Your task to perform on an android device: What's on my calendar for the rest of the month? Image 0: 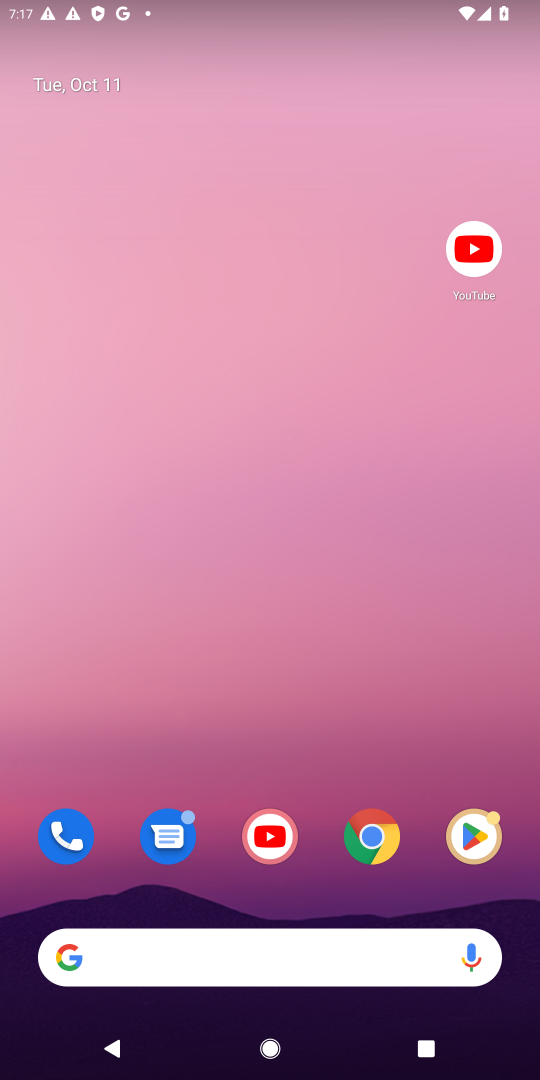
Step 0: drag from (303, 950) to (247, 78)
Your task to perform on an android device: What's on my calendar for the rest of the month? Image 1: 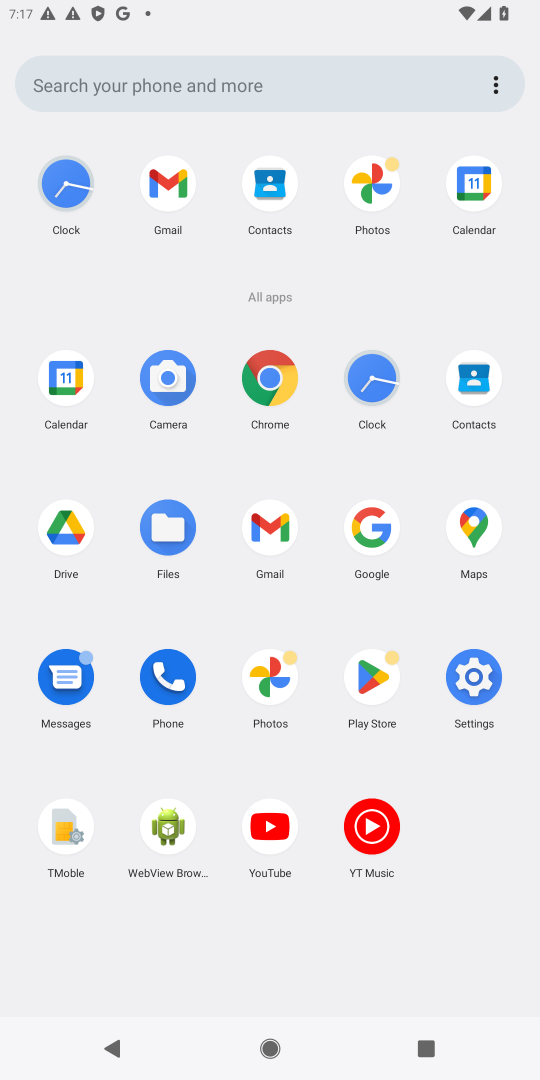
Step 1: click (62, 373)
Your task to perform on an android device: What's on my calendar for the rest of the month? Image 2: 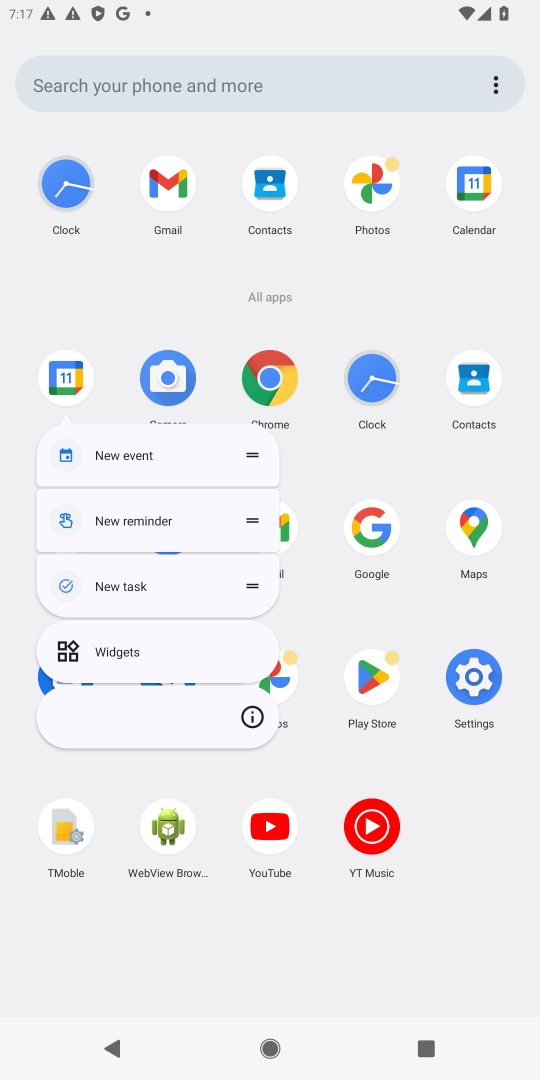
Step 2: click (68, 377)
Your task to perform on an android device: What's on my calendar for the rest of the month? Image 3: 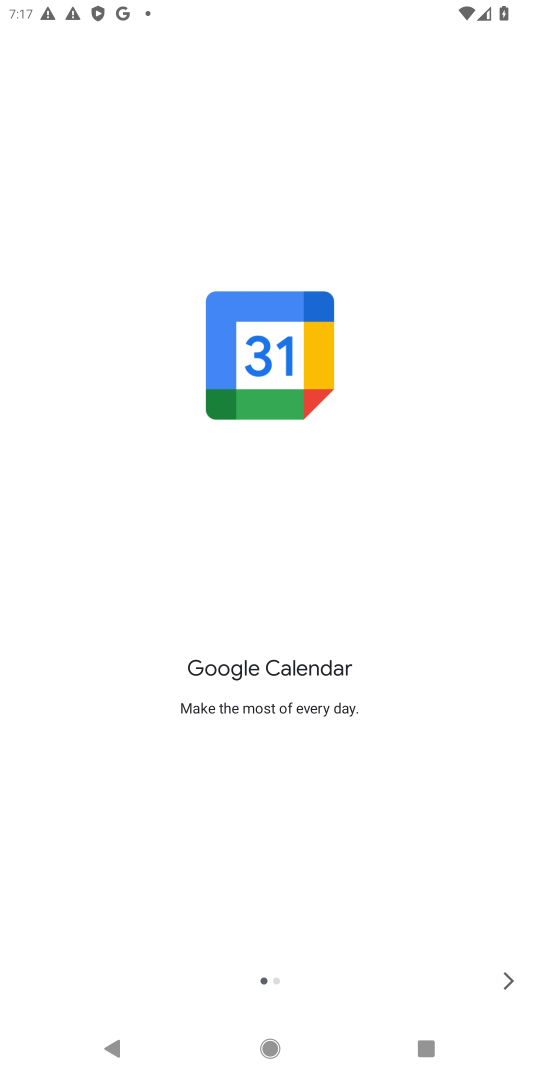
Step 3: click (502, 980)
Your task to perform on an android device: What's on my calendar for the rest of the month? Image 4: 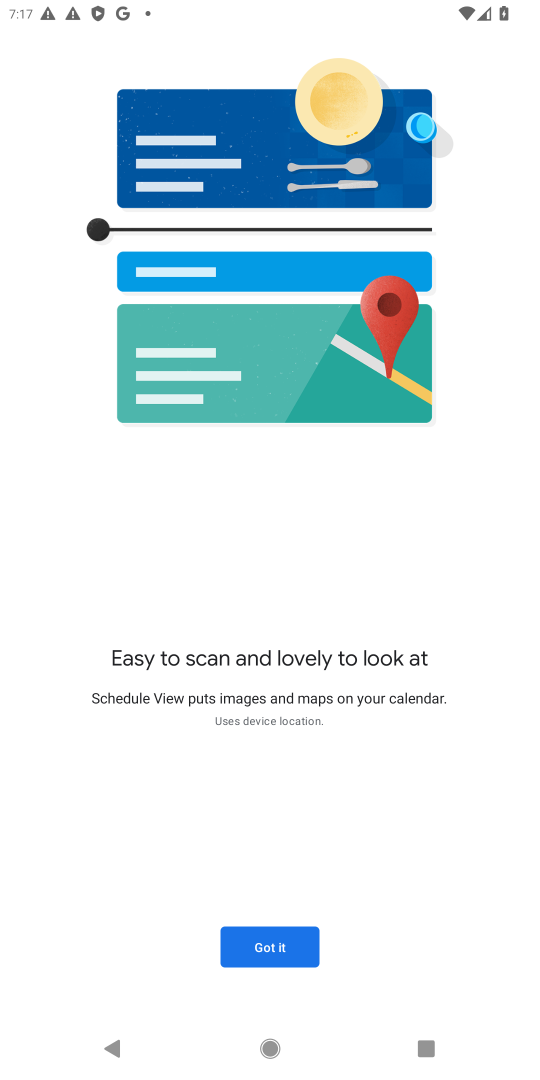
Step 4: click (283, 947)
Your task to perform on an android device: What's on my calendar for the rest of the month? Image 5: 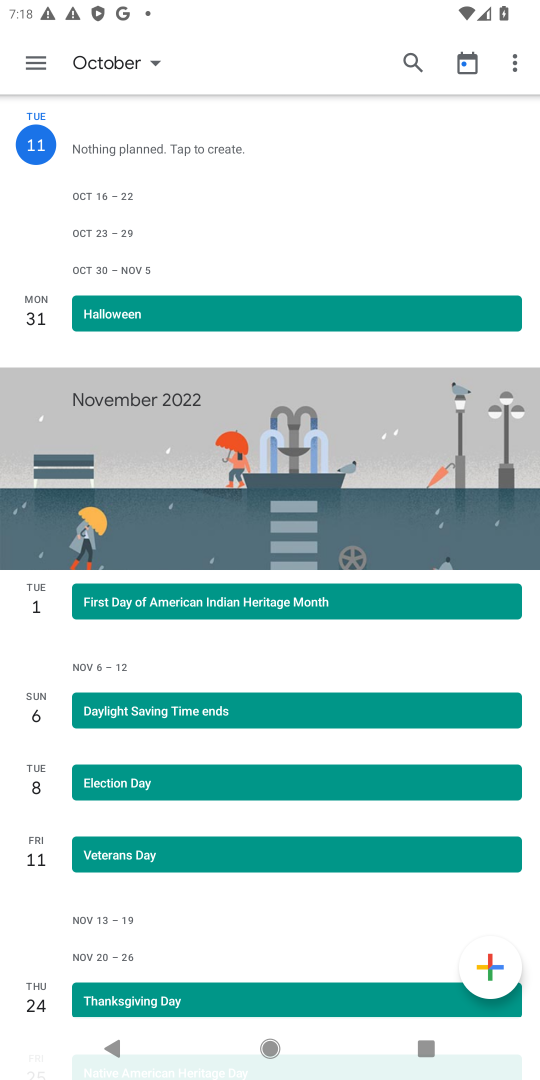
Step 5: task complete